Your task to perform on an android device: set the stopwatch Image 0: 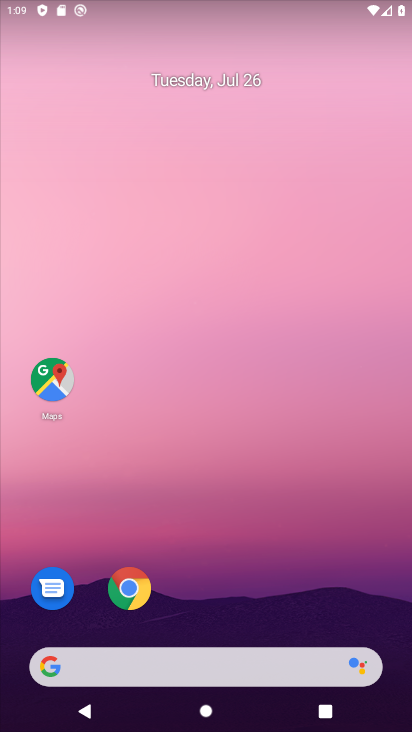
Step 0: drag from (329, 575) to (292, 204)
Your task to perform on an android device: set the stopwatch Image 1: 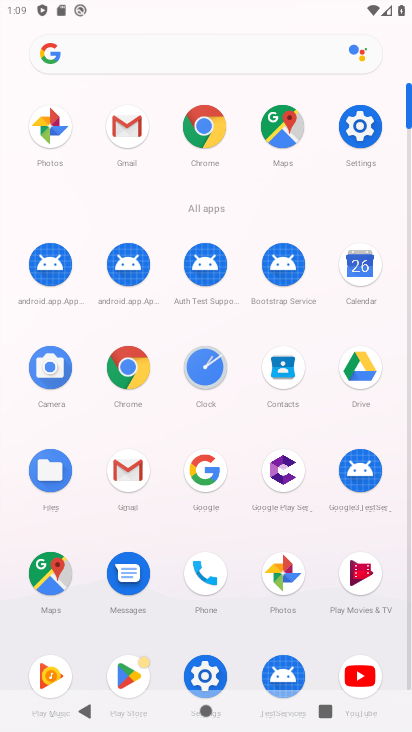
Step 1: click (213, 380)
Your task to perform on an android device: set the stopwatch Image 2: 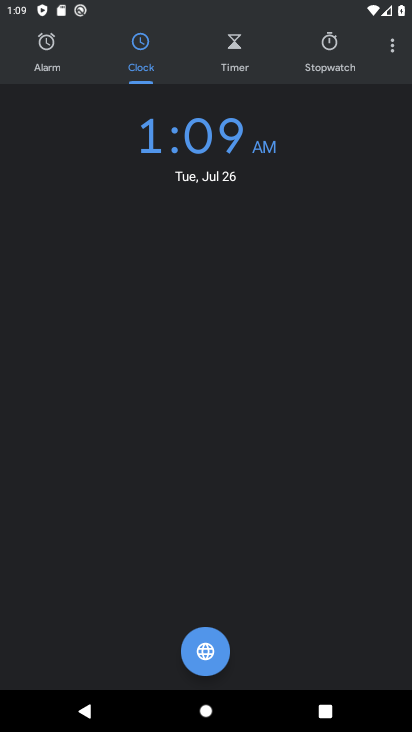
Step 2: click (324, 40)
Your task to perform on an android device: set the stopwatch Image 3: 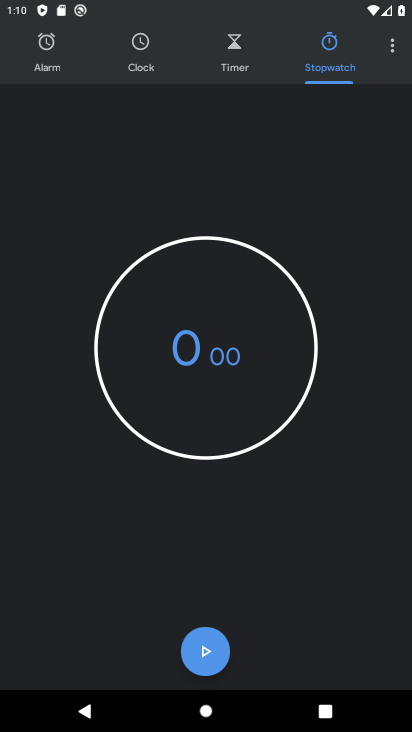
Step 3: click (225, 639)
Your task to perform on an android device: set the stopwatch Image 4: 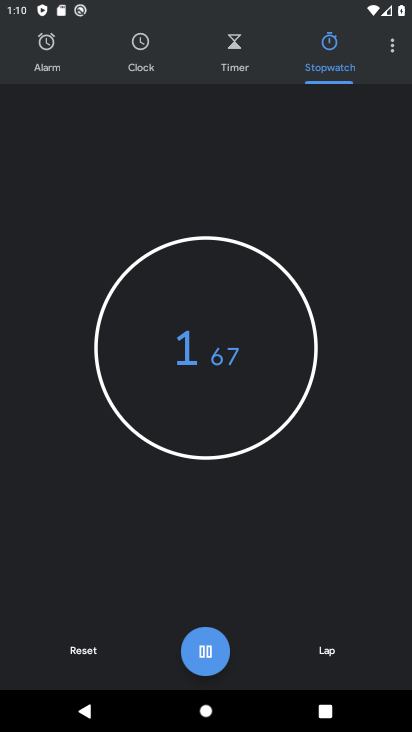
Step 4: task complete